Your task to perform on an android device: set the stopwatch Image 0: 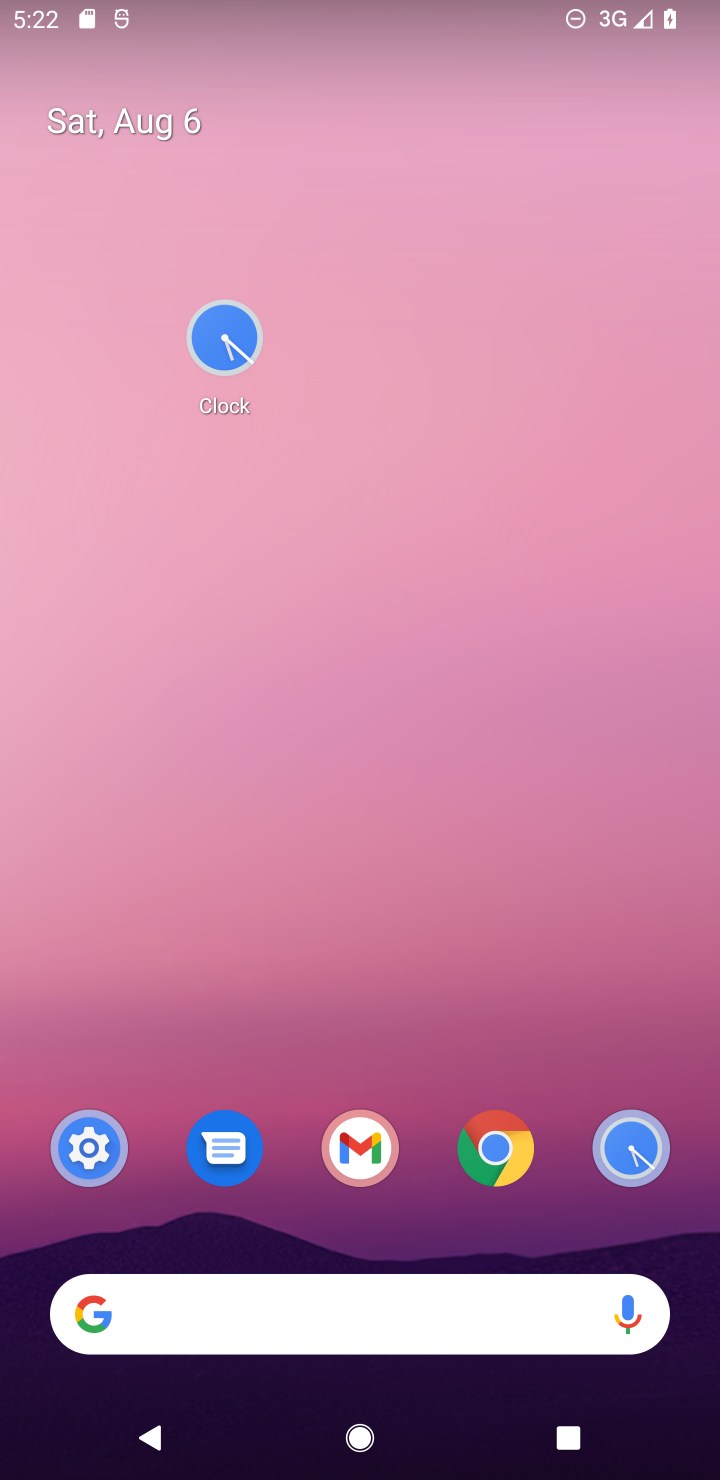
Step 0: drag from (330, 668) to (385, 198)
Your task to perform on an android device: set the stopwatch Image 1: 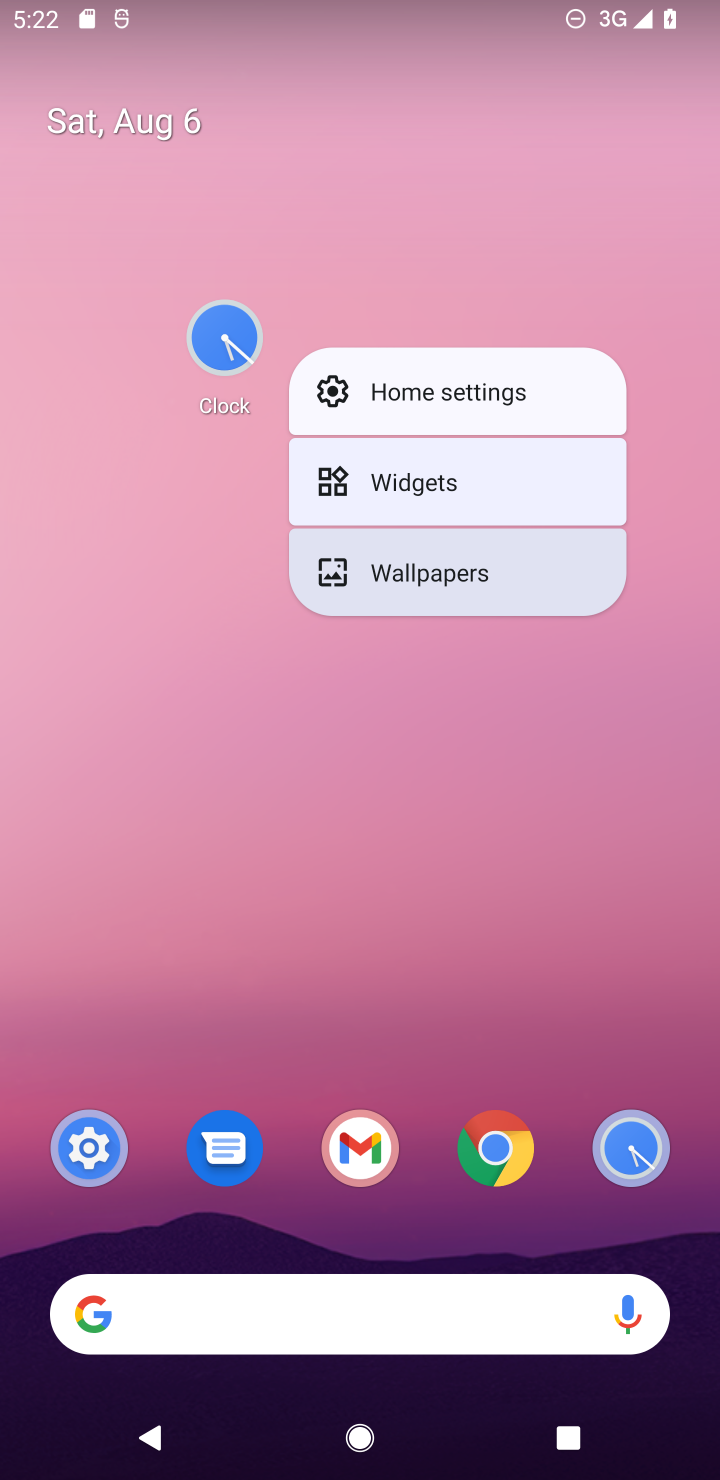
Step 1: click (646, 1123)
Your task to perform on an android device: set the stopwatch Image 2: 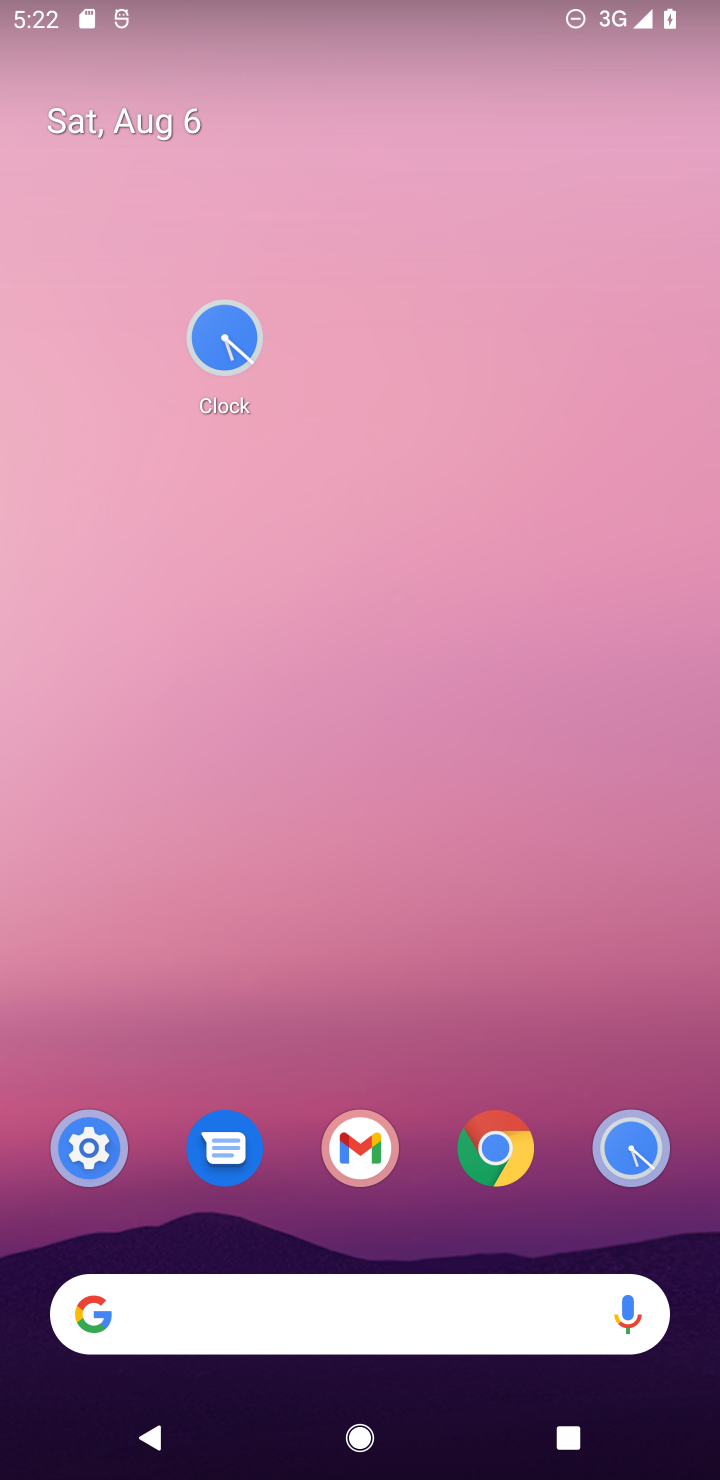
Step 2: click (612, 1103)
Your task to perform on an android device: set the stopwatch Image 3: 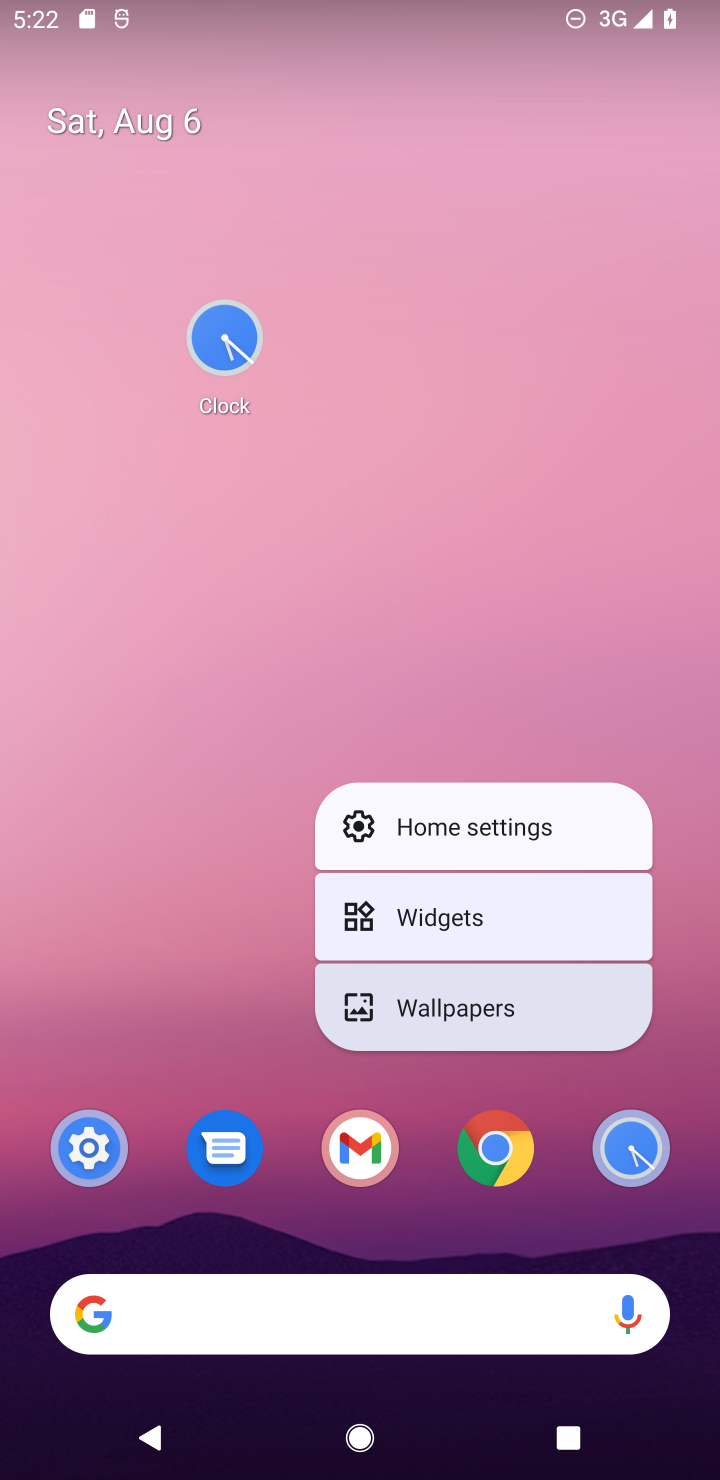
Step 3: click (619, 1145)
Your task to perform on an android device: set the stopwatch Image 4: 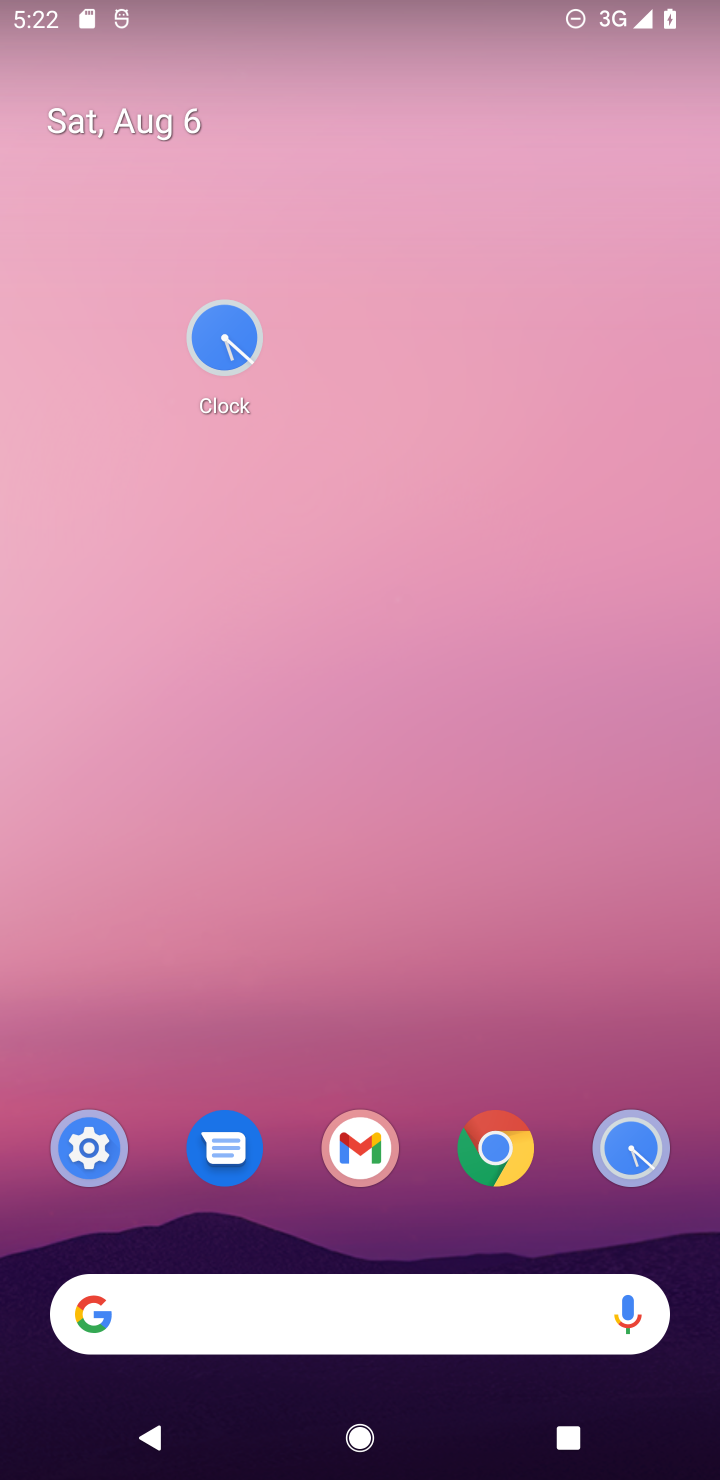
Step 4: click (623, 1145)
Your task to perform on an android device: set the stopwatch Image 5: 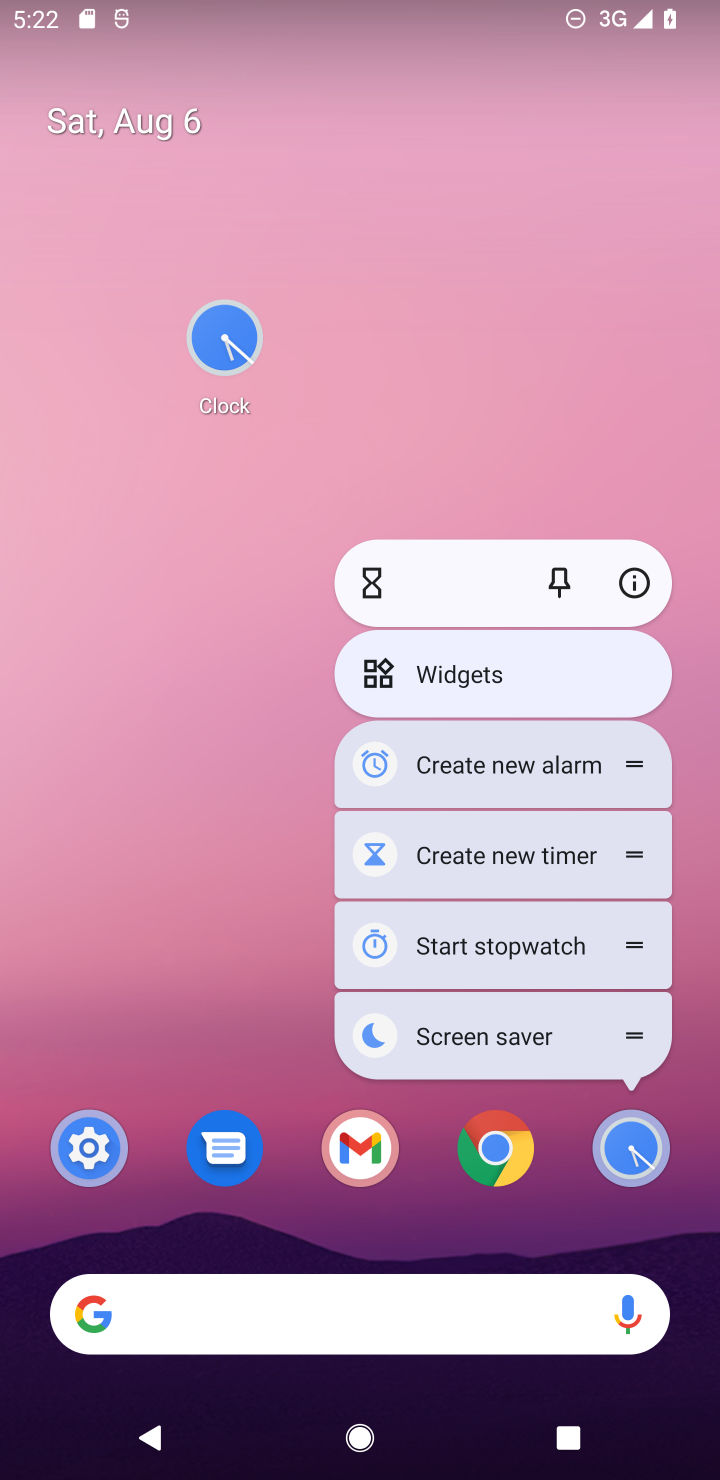
Step 5: click (624, 592)
Your task to perform on an android device: set the stopwatch Image 6: 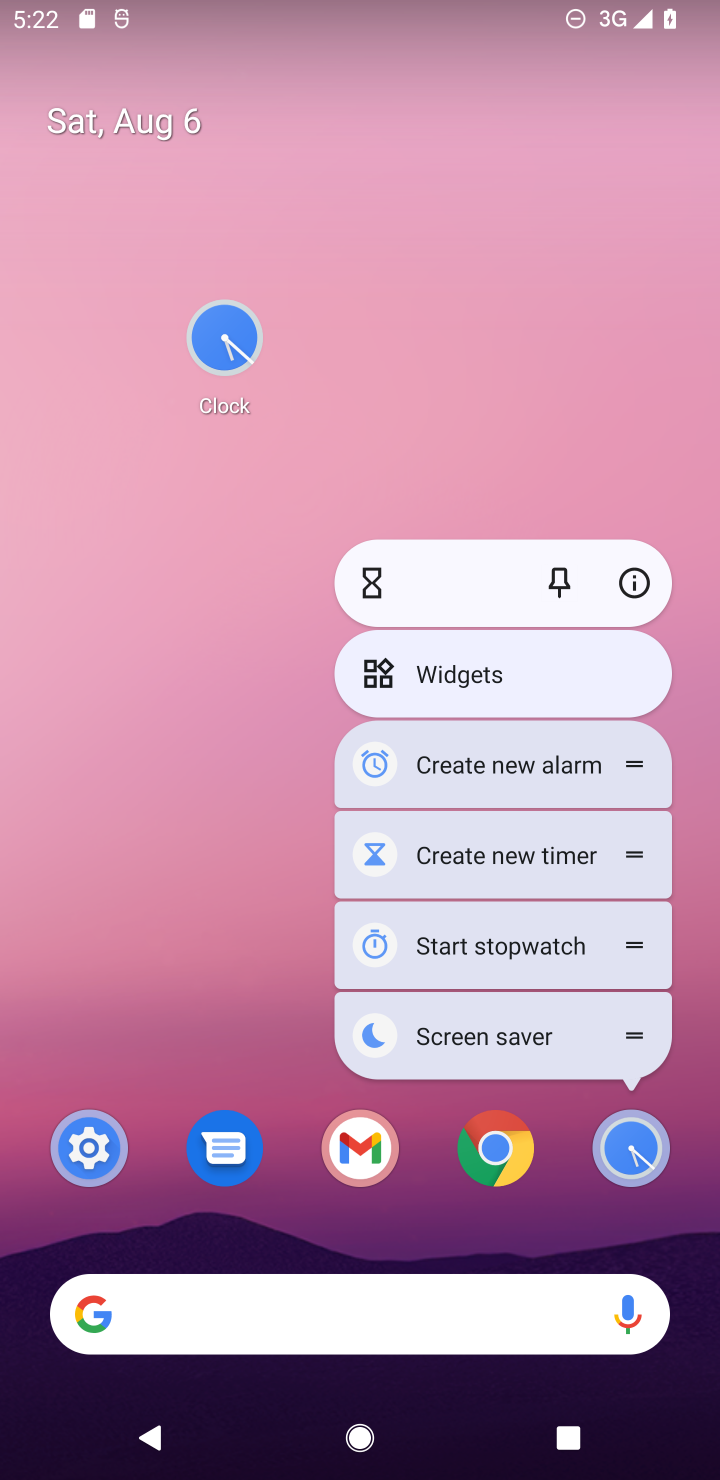
Step 6: click (620, 607)
Your task to perform on an android device: set the stopwatch Image 7: 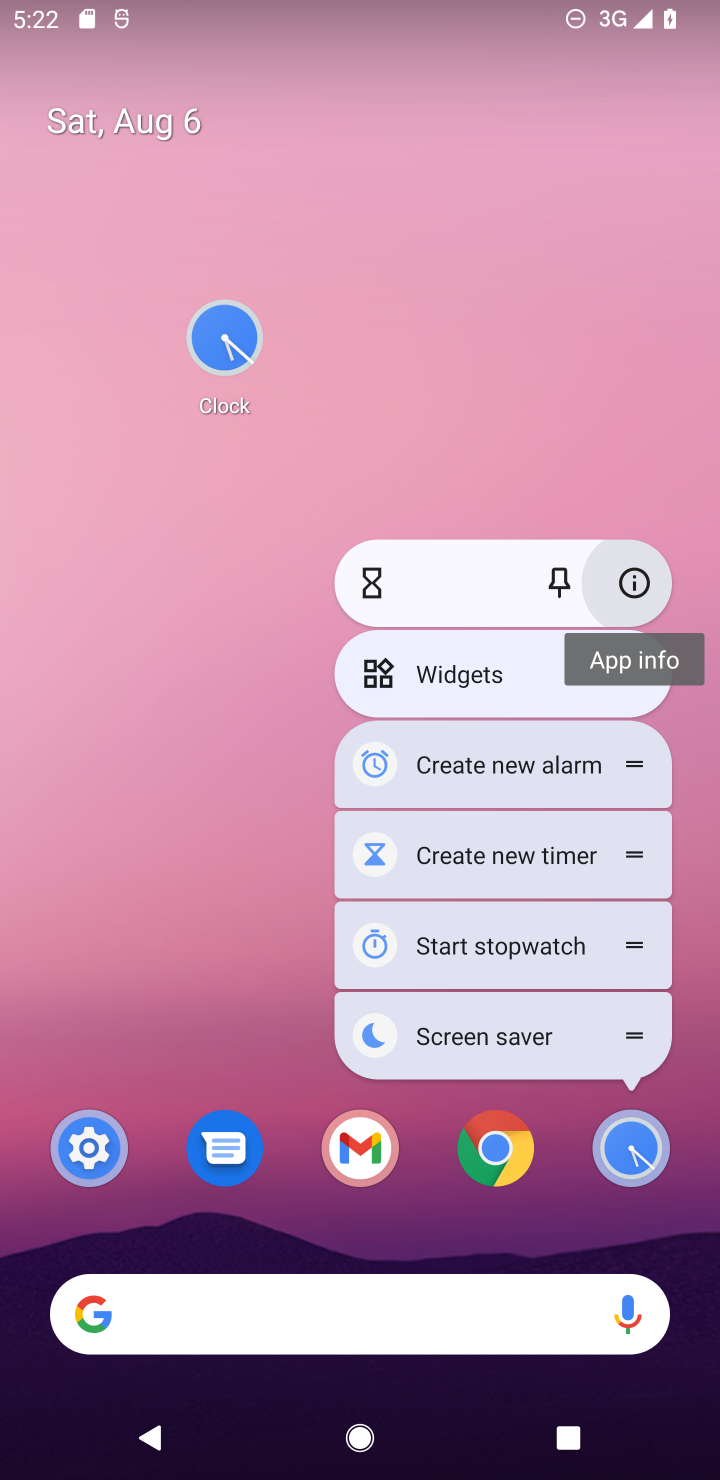
Step 7: click (634, 575)
Your task to perform on an android device: set the stopwatch Image 8: 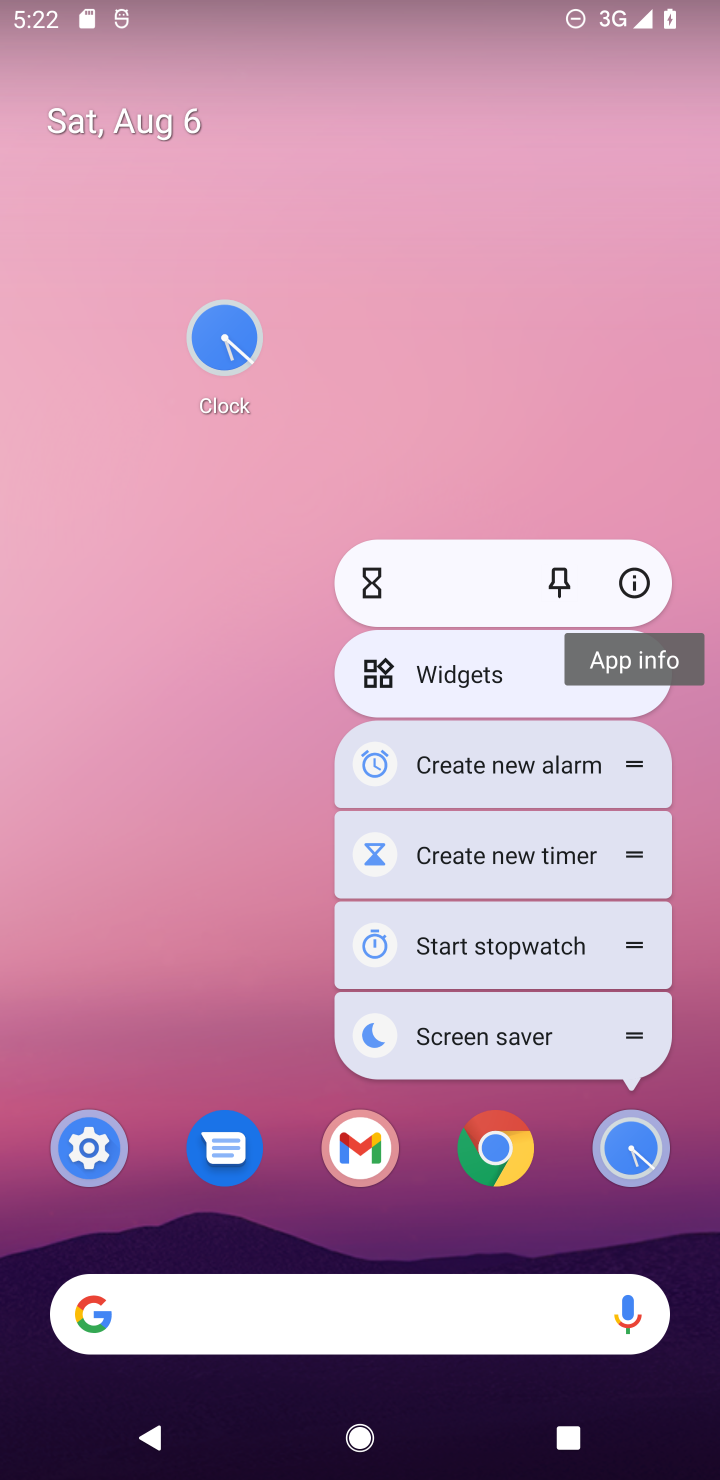
Step 8: click (639, 605)
Your task to perform on an android device: set the stopwatch Image 9: 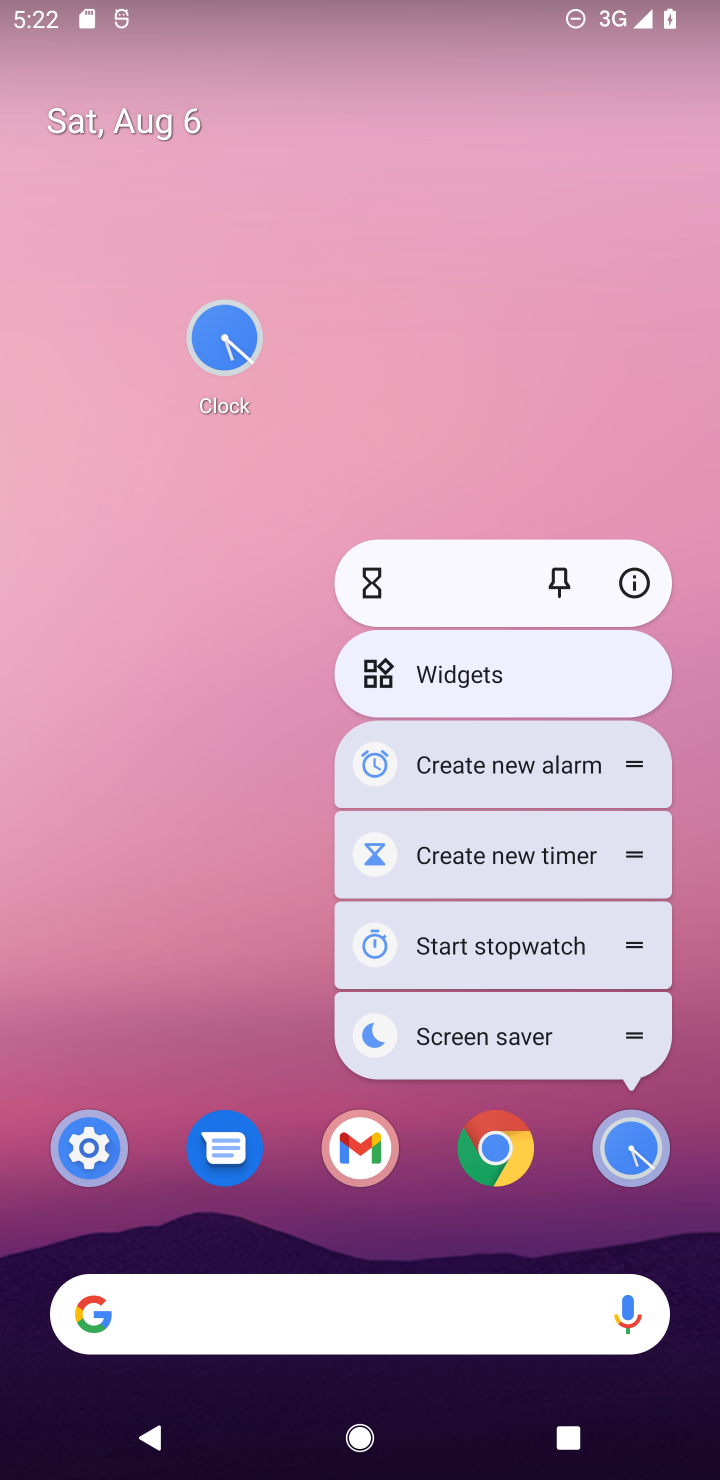
Step 9: click (640, 567)
Your task to perform on an android device: set the stopwatch Image 10: 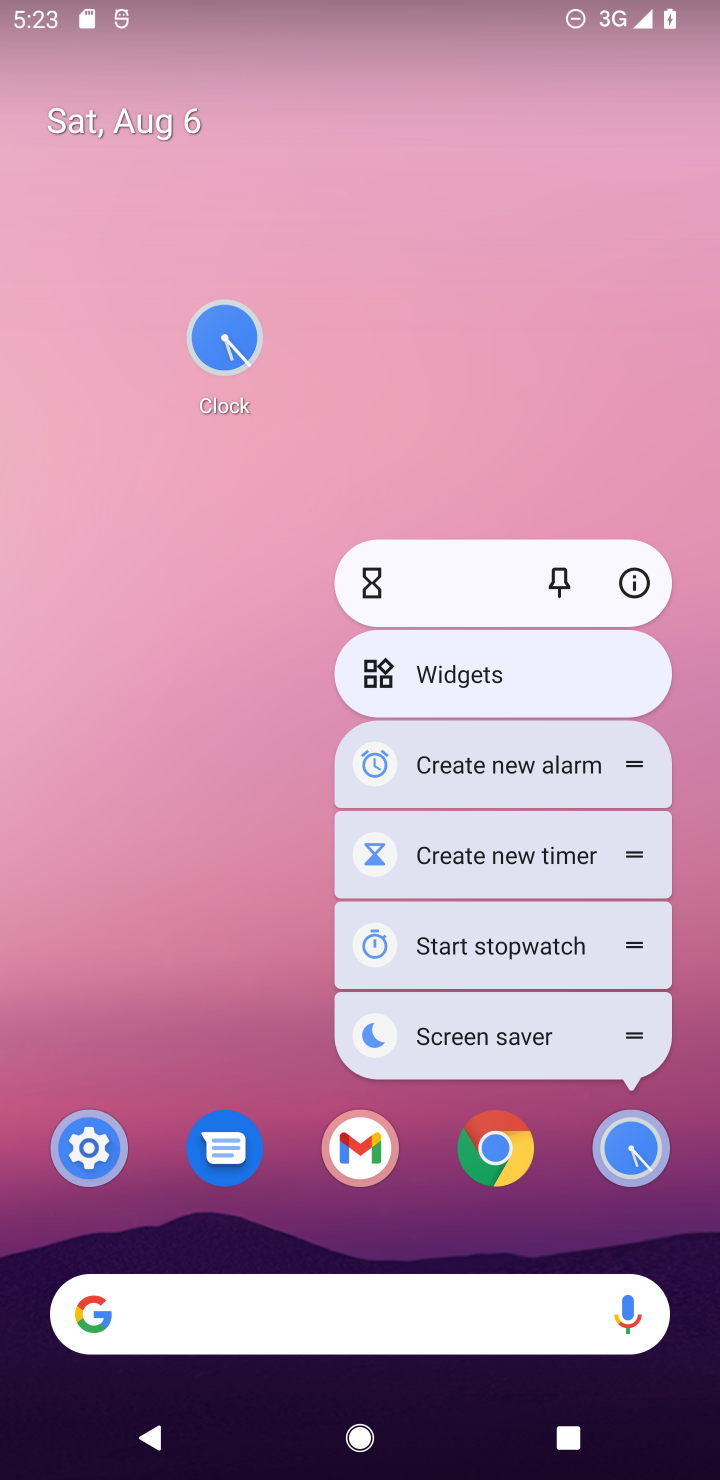
Step 10: click (622, 1150)
Your task to perform on an android device: set the stopwatch Image 11: 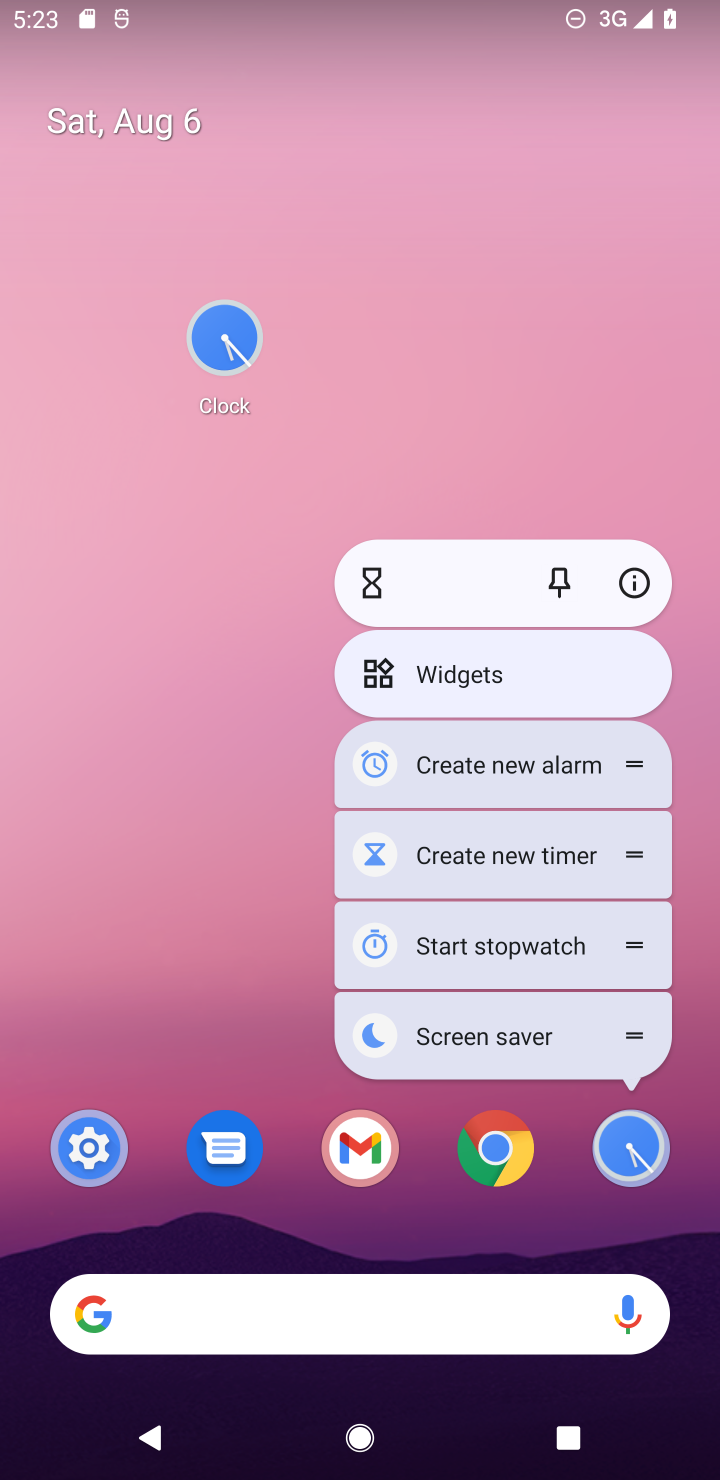
Step 11: click (618, 1146)
Your task to perform on an android device: set the stopwatch Image 12: 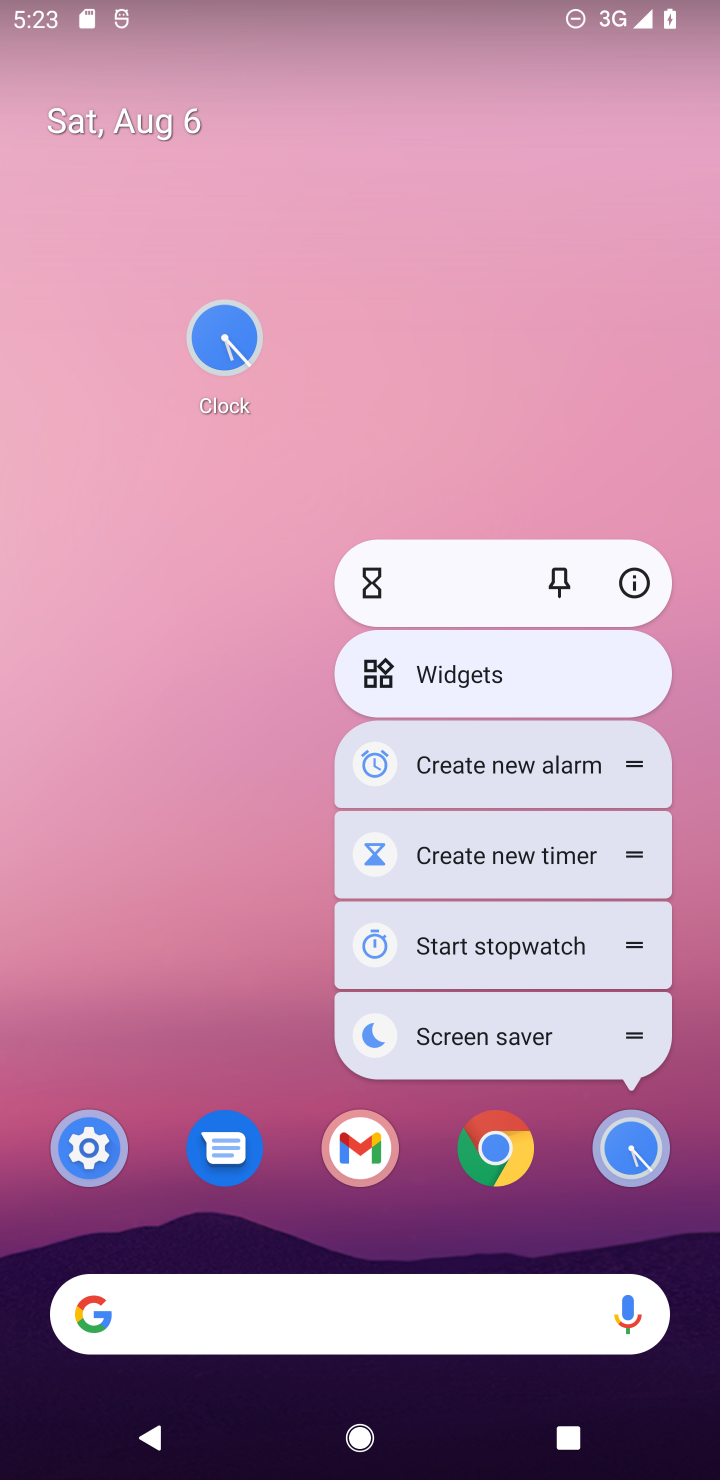
Step 12: click (626, 592)
Your task to perform on an android device: set the stopwatch Image 13: 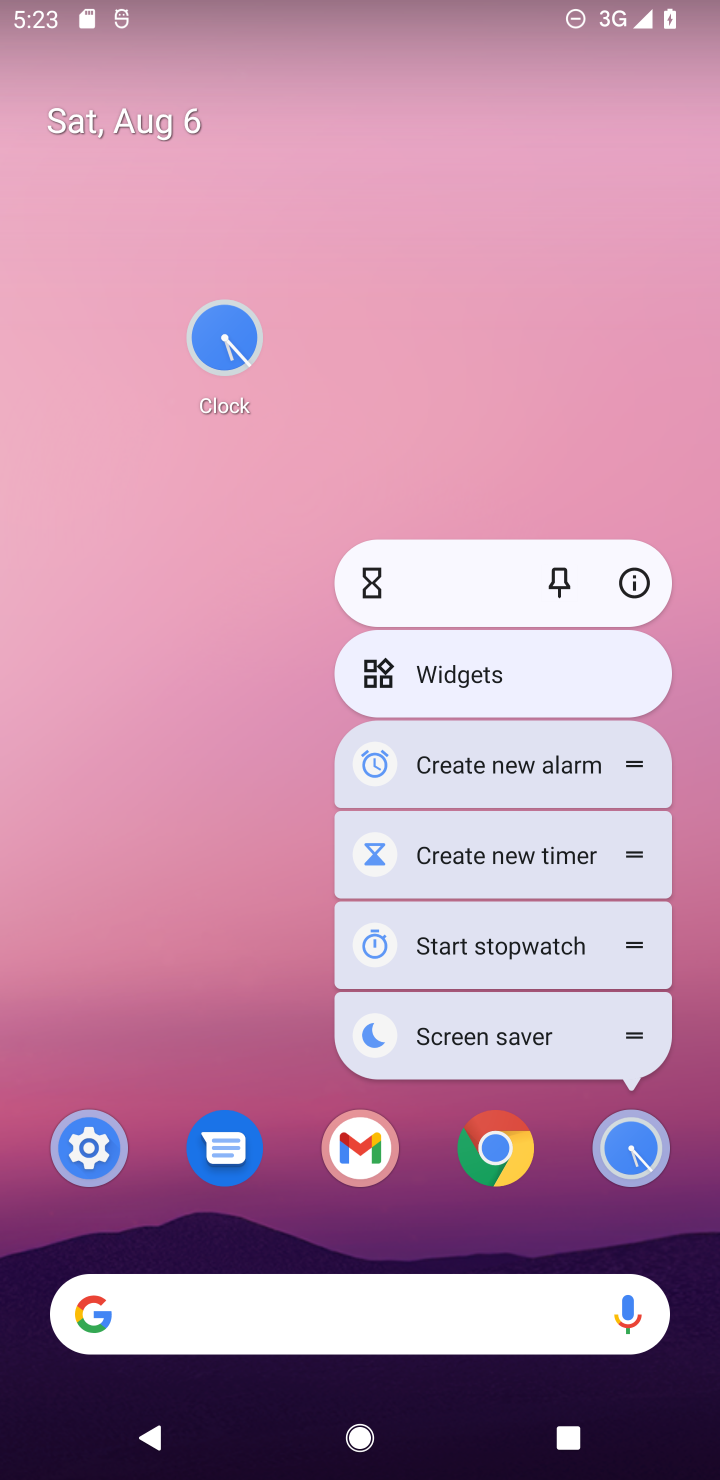
Step 13: click (626, 598)
Your task to perform on an android device: set the stopwatch Image 14: 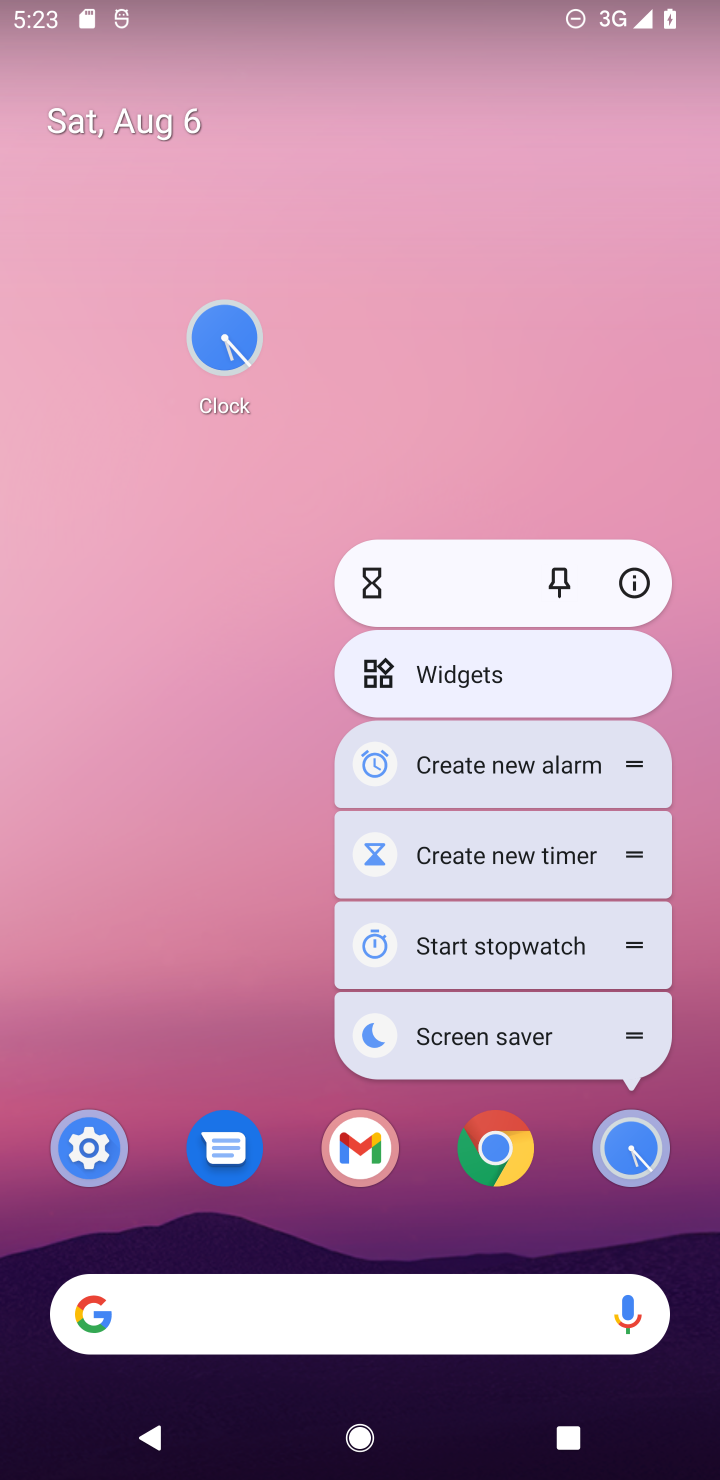
Step 14: click (626, 598)
Your task to perform on an android device: set the stopwatch Image 15: 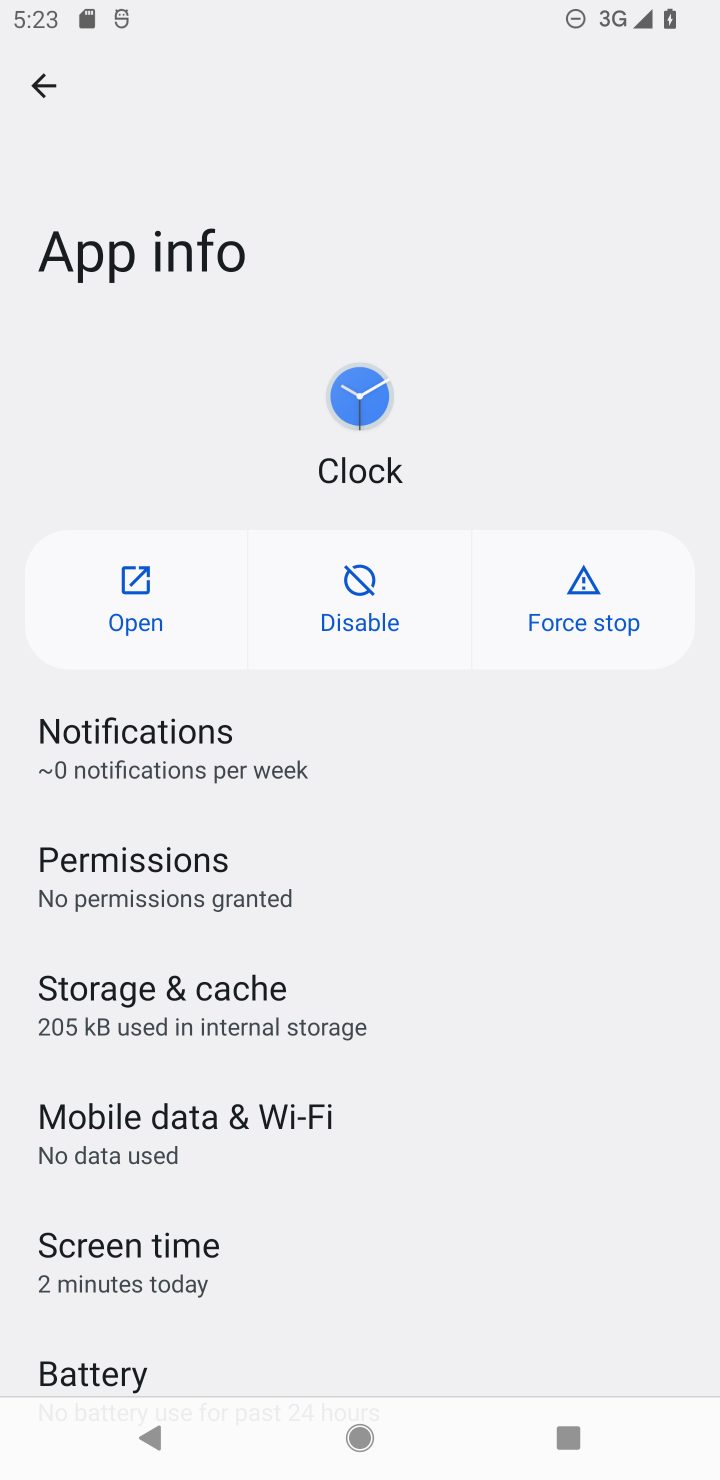
Step 15: click (130, 609)
Your task to perform on an android device: set the stopwatch Image 16: 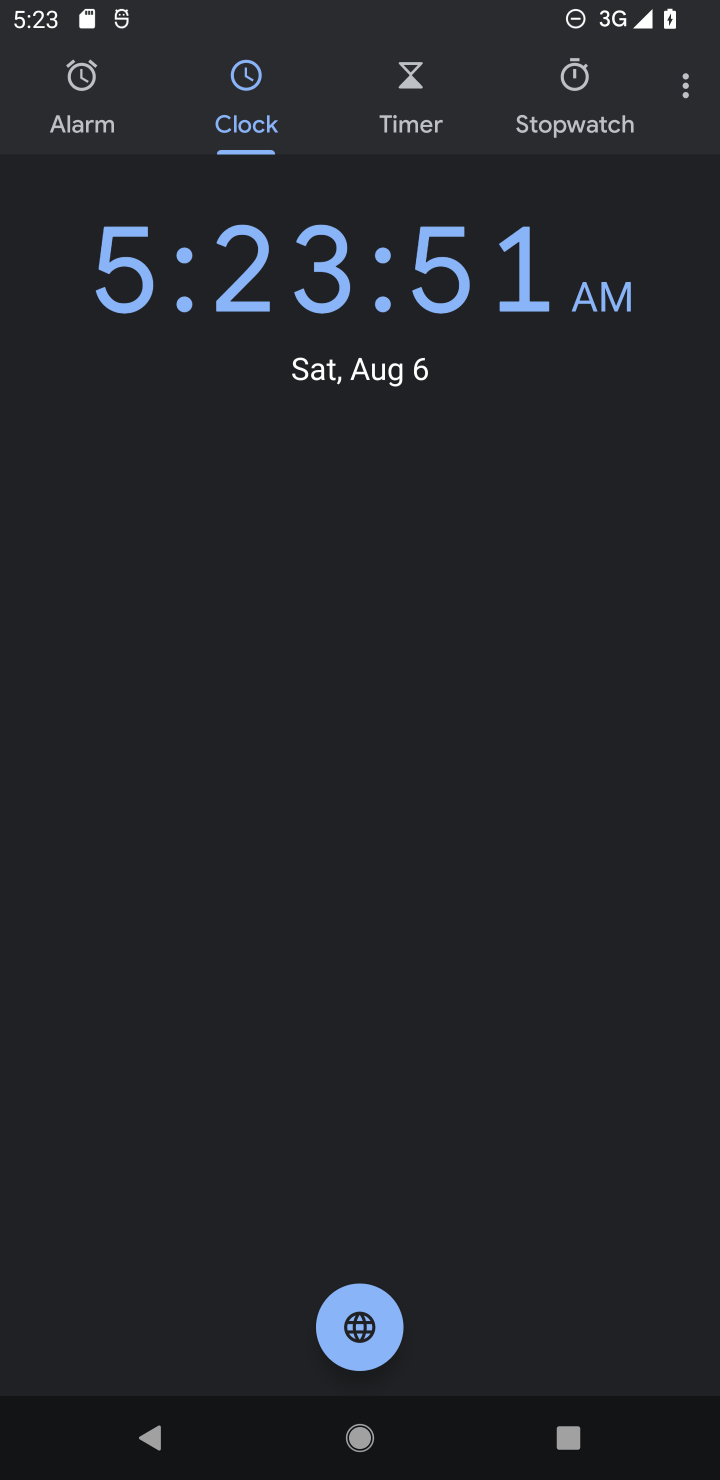
Step 16: click (579, 102)
Your task to perform on an android device: set the stopwatch Image 17: 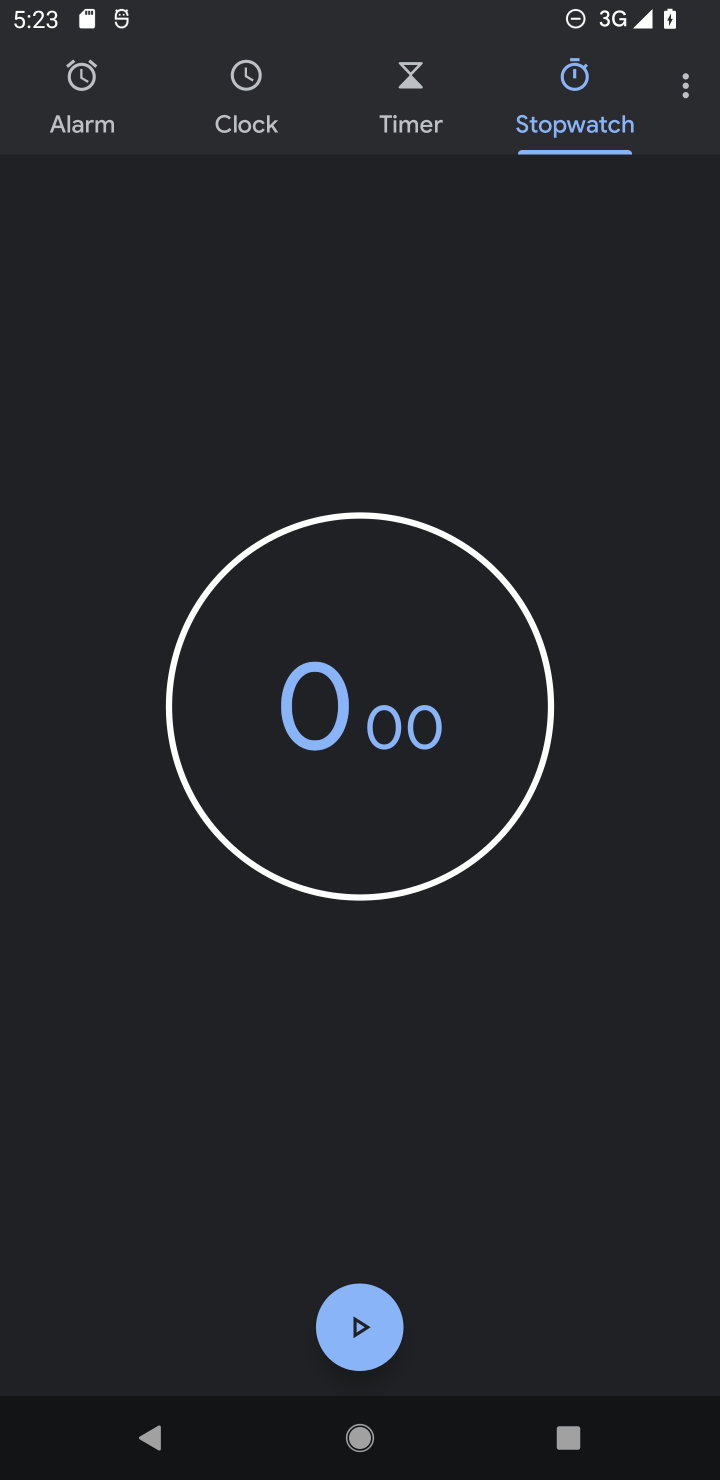
Step 17: click (358, 1322)
Your task to perform on an android device: set the stopwatch Image 18: 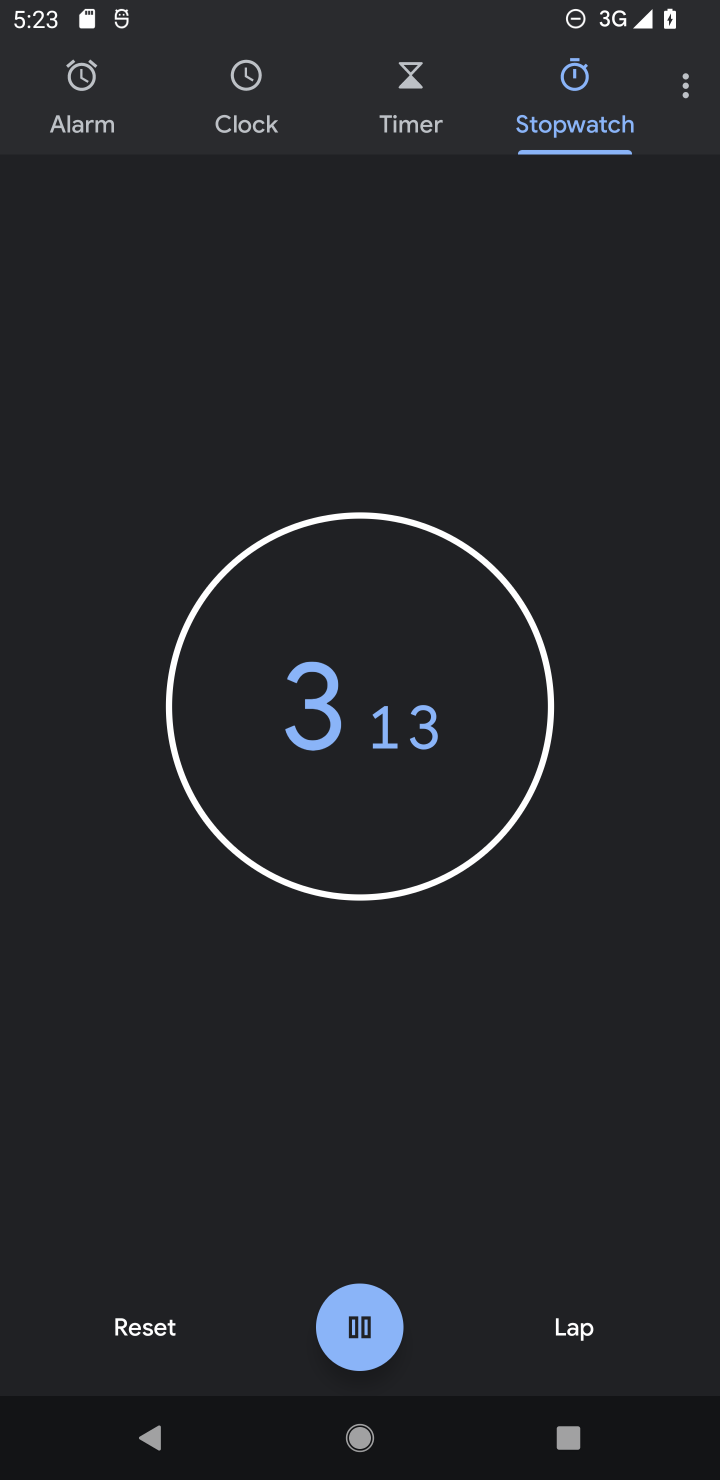
Step 18: task complete